Your task to perform on an android device: Open Chrome and go to settings Image 0: 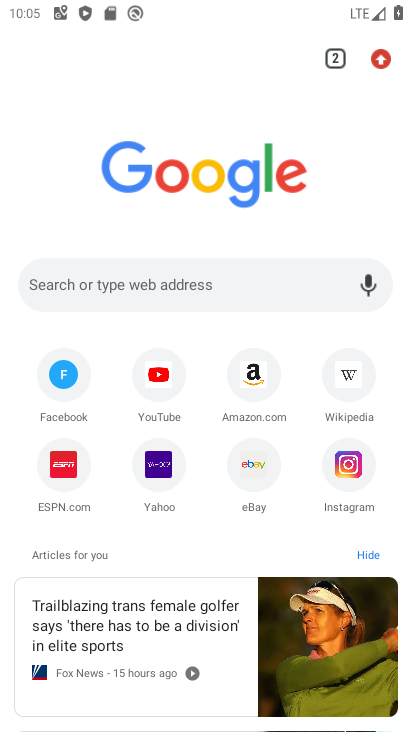
Step 0: click (382, 56)
Your task to perform on an android device: Open Chrome and go to settings Image 1: 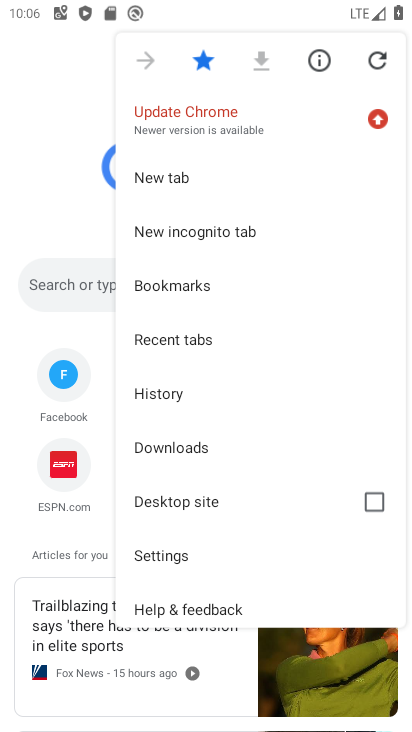
Step 1: click (162, 548)
Your task to perform on an android device: Open Chrome and go to settings Image 2: 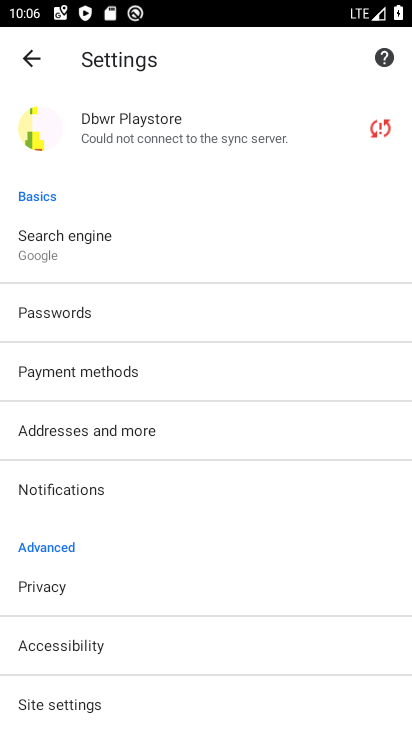
Step 2: task complete